Your task to perform on an android device: turn on showing notifications on the lock screen Image 0: 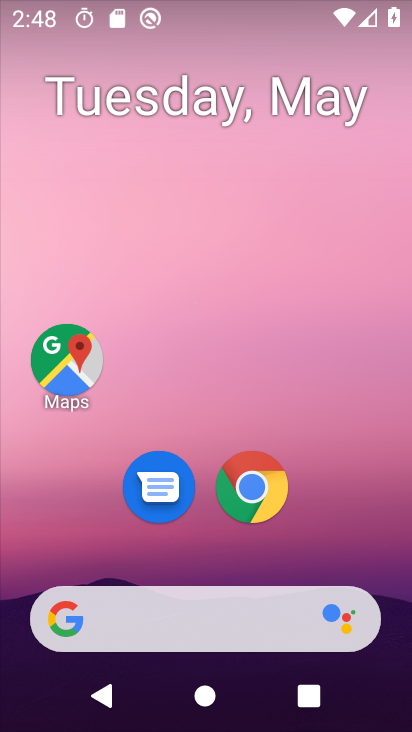
Step 0: click (365, 367)
Your task to perform on an android device: turn on showing notifications on the lock screen Image 1: 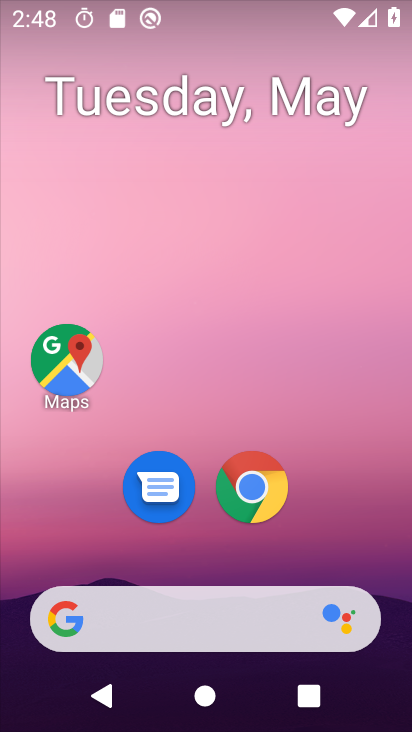
Step 1: drag from (396, 640) to (381, 337)
Your task to perform on an android device: turn on showing notifications on the lock screen Image 2: 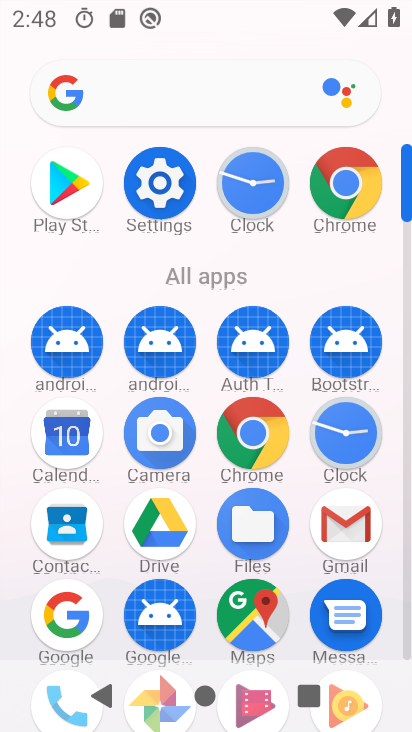
Step 2: click (142, 183)
Your task to perform on an android device: turn on showing notifications on the lock screen Image 3: 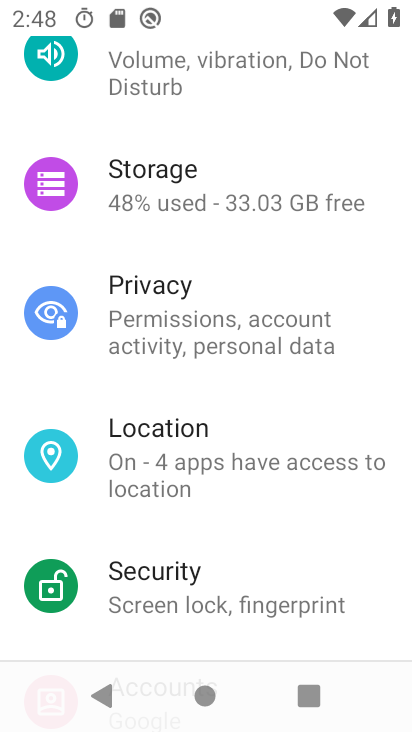
Step 3: drag from (352, 95) to (375, 509)
Your task to perform on an android device: turn on showing notifications on the lock screen Image 4: 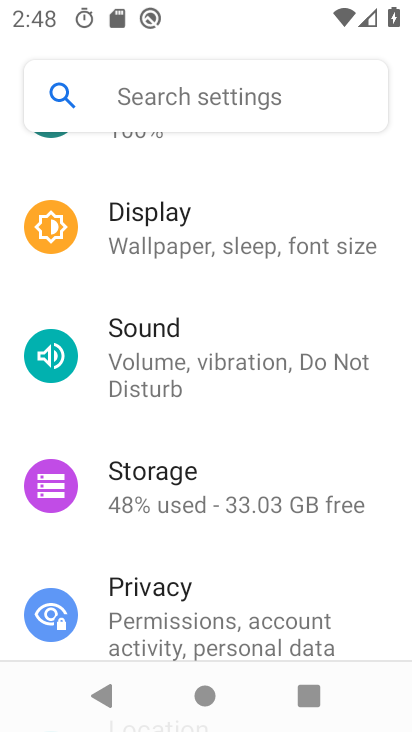
Step 4: drag from (347, 165) to (330, 682)
Your task to perform on an android device: turn on showing notifications on the lock screen Image 5: 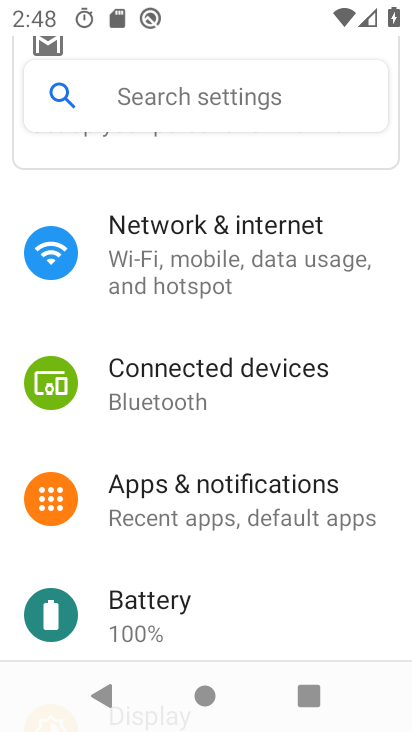
Step 5: click (200, 478)
Your task to perform on an android device: turn on showing notifications on the lock screen Image 6: 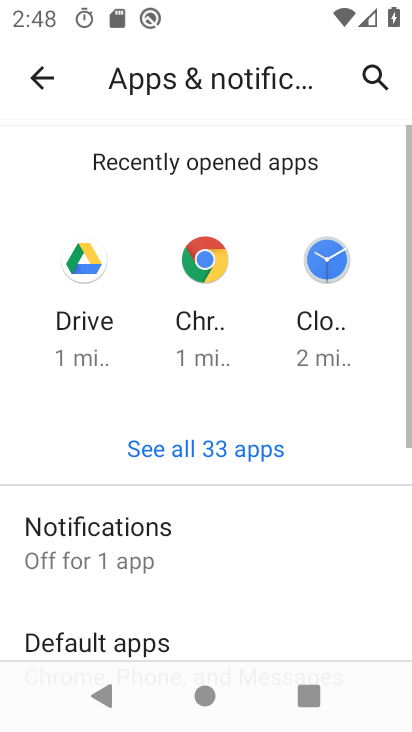
Step 6: click (49, 530)
Your task to perform on an android device: turn on showing notifications on the lock screen Image 7: 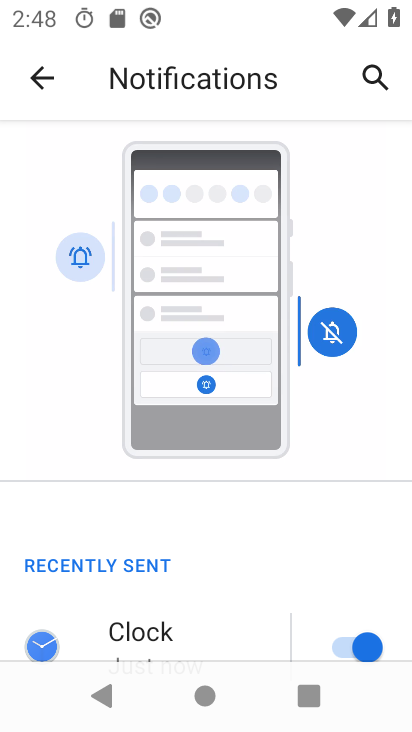
Step 7: drag from (278, 623) to (277, 410)
Your task to perform on an android device: turn on showing notifications on the lock screen Image 8: 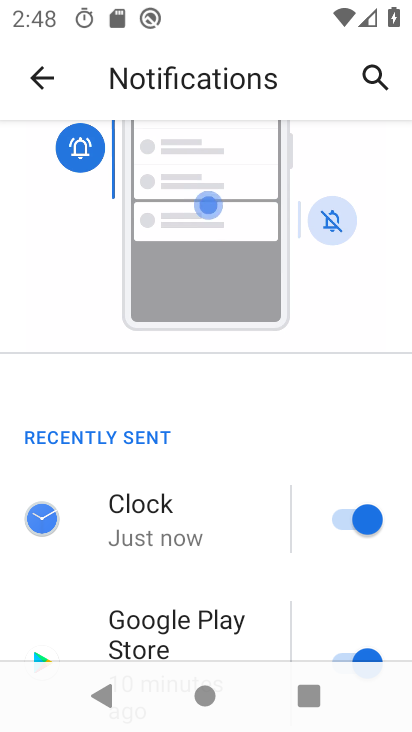
Step 8: drag from (265, 601) to (259, 375)
Your task to perform on an android device: turn on showing notifications on the lock screen Image 9: 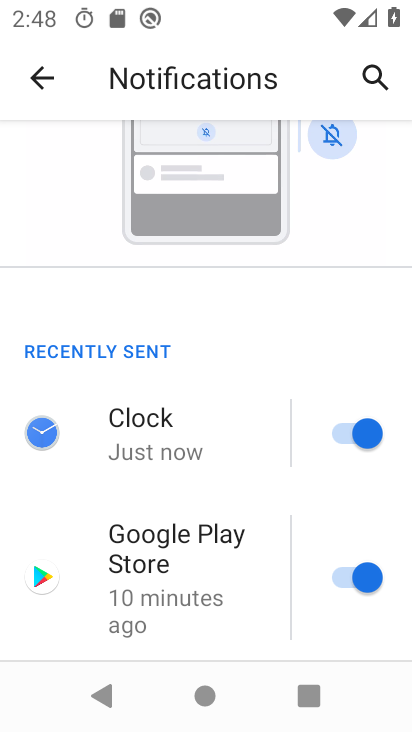
Step 9: drag from (247, 613) to (231, 432)
Your task to perform on an android device: turn on showing notifications on the lock screen Image 10: 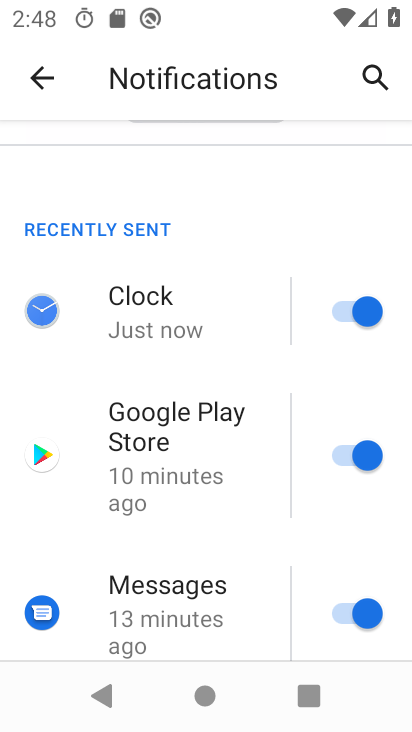
Step 10: drag from (252, 621) to (238, 343)
Your task to perform on an android device: turn on showing notifications on the lock screen Image 11: 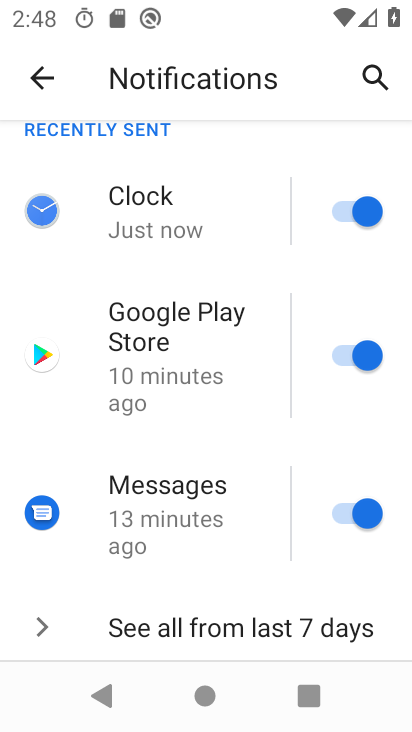
Step 11: drag from (257, 582) to (285, 325)
Your task to perform on an android device: turn on showing notifications on the lock screen Image 12: 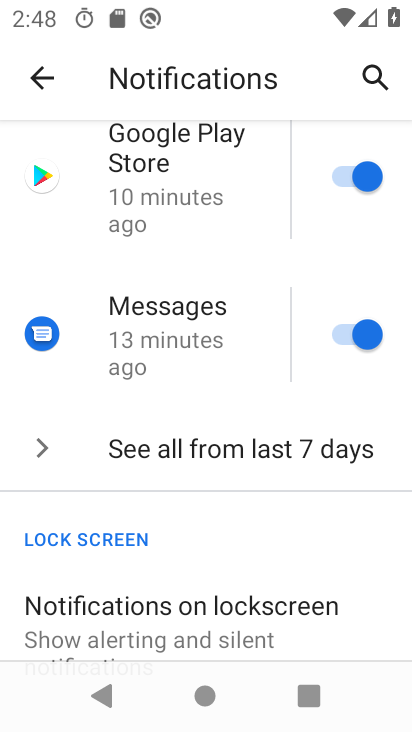
Step 12: click (262, 613)
Your task to perform on an android device: turn on showing notifications on the lock screen Image 13: 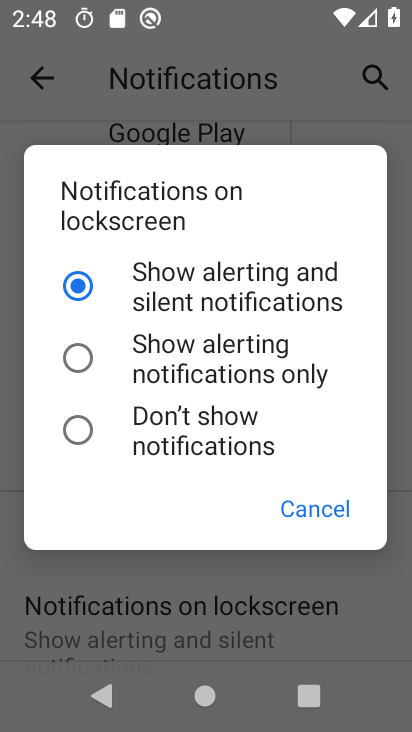
Step 13: task complete